Your task to perform on an android device: Turn on the flashlight Image 0: 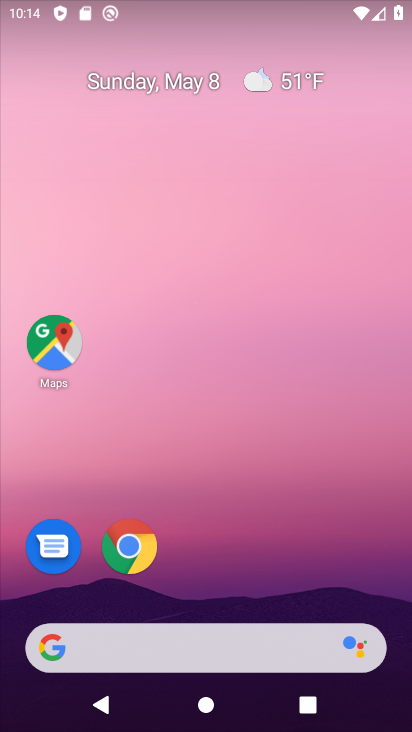
Step 0: drag from (255, 556) to (241, 6)
Your task to perform on an android device: Turn on the flashlight Image 1: 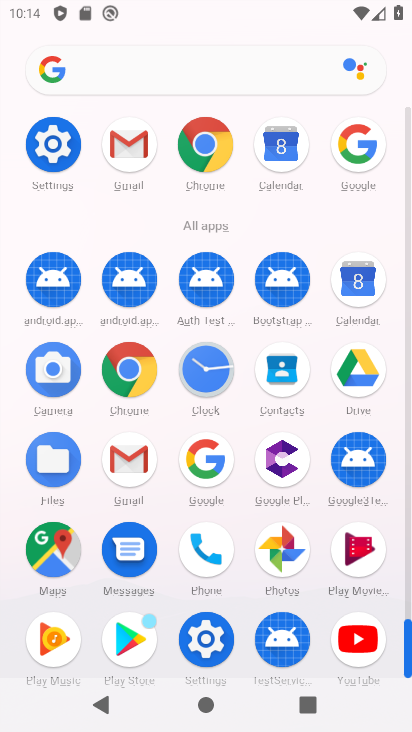
Step 1: click (52, 142)
Your task to perform on an android device: Turn on the flashlight Image 2: 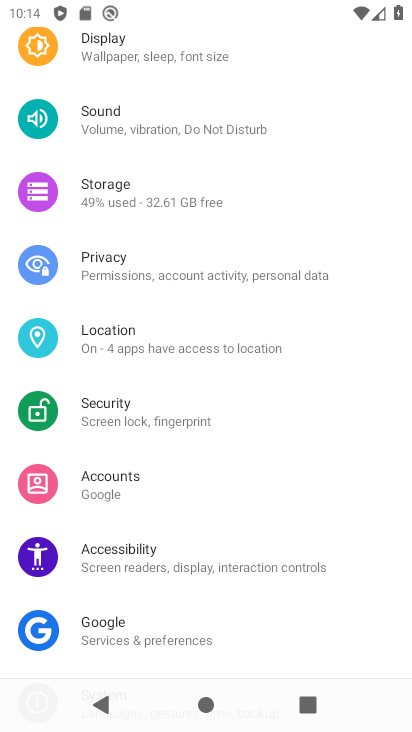
Step 2: drag from (147, 598) to (172, 469)
Your task to perform on an android device: Turn on the flashlight Image 3: 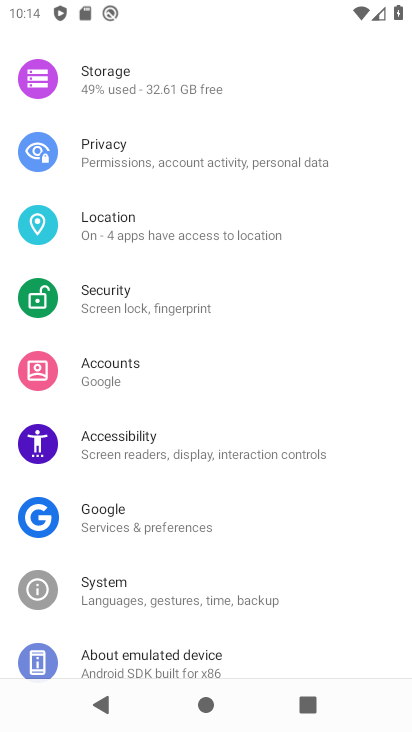
Step 3: drag from (131, 546) to (185, 444)
Your task to perform on an android device: Turn on the flashlight Image 4: 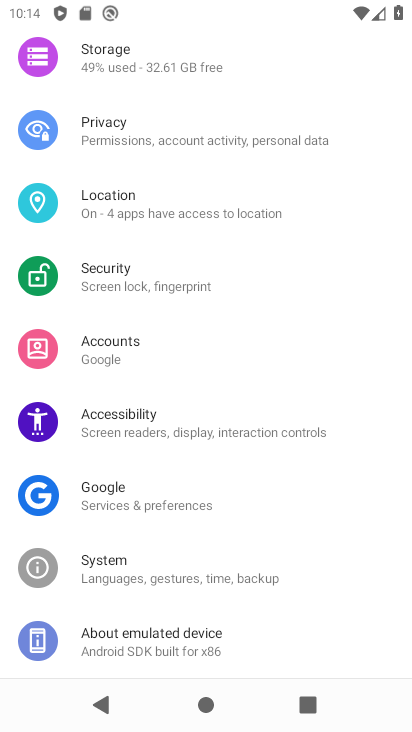
Step 4: drag from (175, 391) to (202, 494)
Your task to perform on an android device: Turn on the flashlight Image 5: 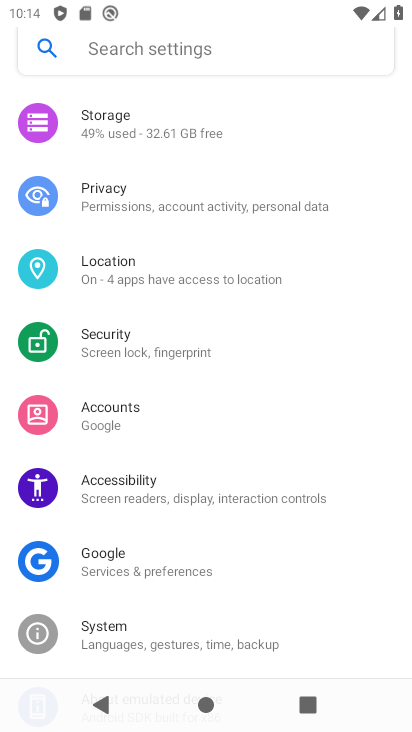
Step 5: drag from (165, 388) to (199, 480)
Your task to perform on an android device: Turn on the flashlight Image 6: 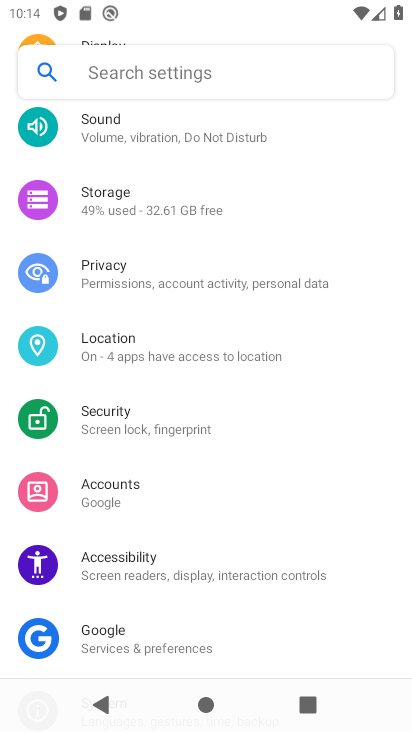
Step 6: drag from (168, 394) to (182, 482)
Your task to perform on an android device: Turn on the flashlight Image 7: 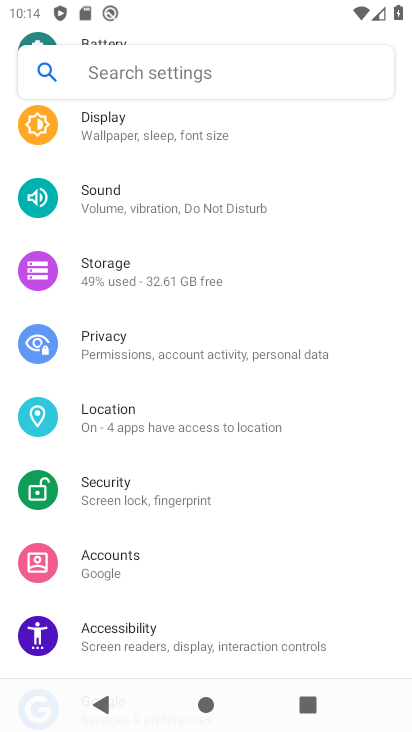
Step 7: drag from (159, 391) to (166, 463)
Your task to perform on an android device: Turn on the flashlight Image 8: 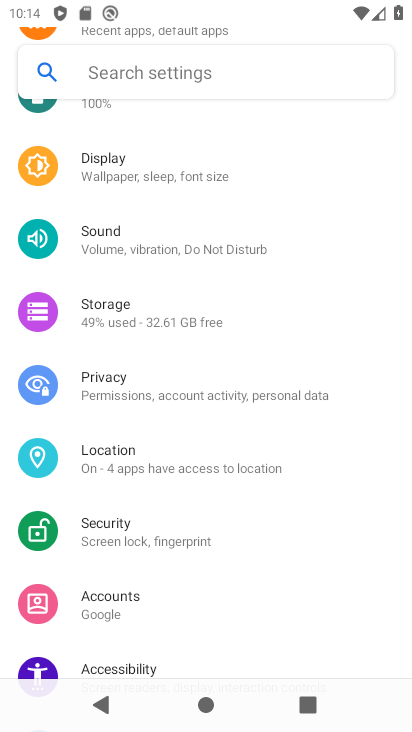
Step 8: drag from (160, 357) to (166, 450)
Your task to perform on an android device: Turn on the flashlight Image 9: 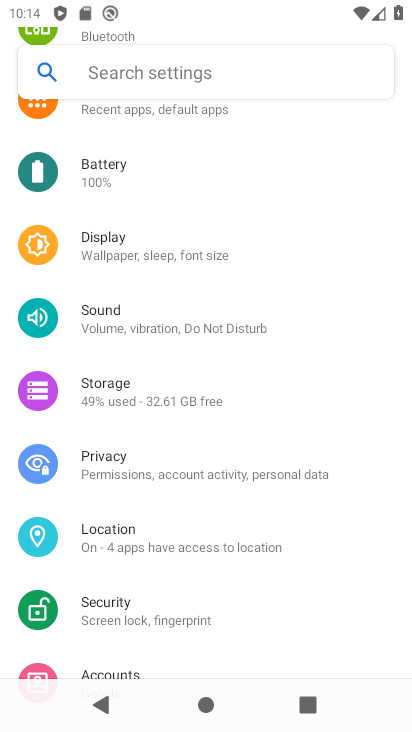
Step 9: drag from (150, 363) to (161, 454)
Your task to perform on an android device: Turn on the flashlight Image 10: 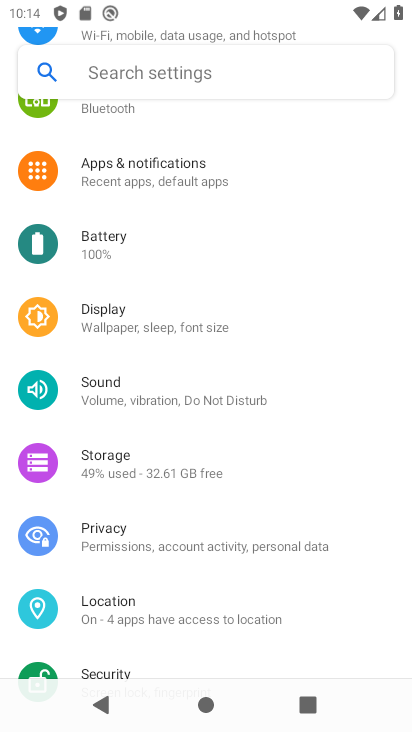
Step 10: click (159, 331)
Your task to perform on an android device: Turn on the flashlight Image 11: 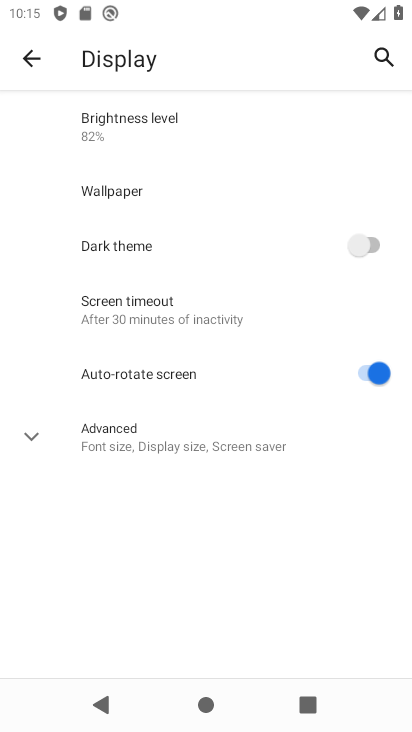
Step 11: press back button
Your task to perform on an android device: Turn on the flashlight Image 12: 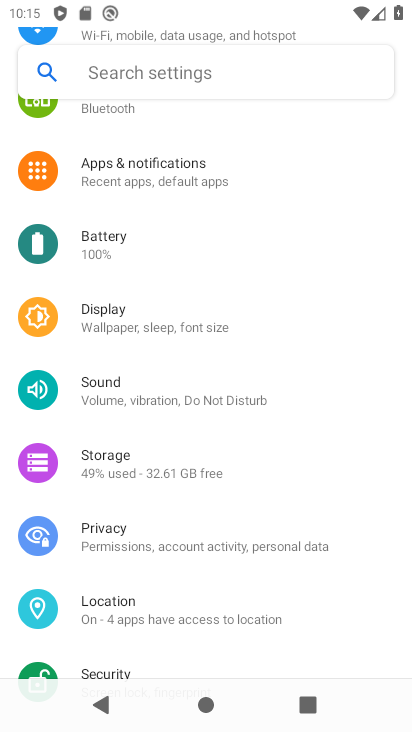
Step 12: click (154, 83)
Your task to perform on an android device: Turn on the flashlight Image 13: 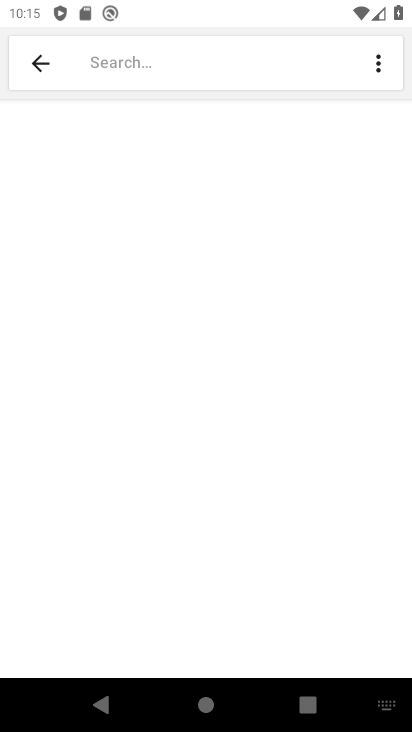
Step 13: type "flashlight"
Your task to perform on an android device: Turn on the flashlight Image 14: 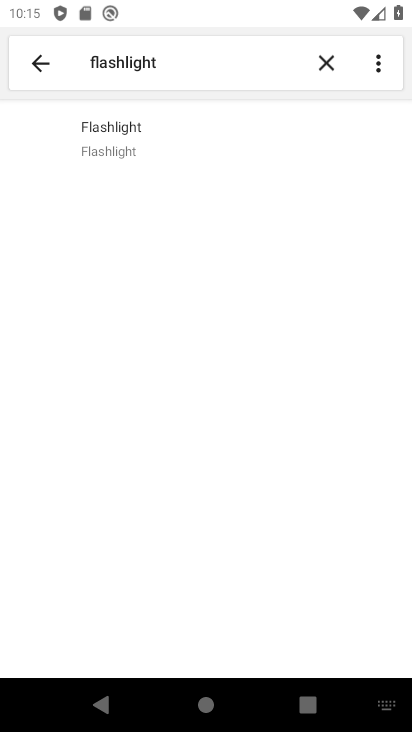
Step 14: click (117, 128)
Your task to perform on an android device: Turn on the flashlight Image 15: 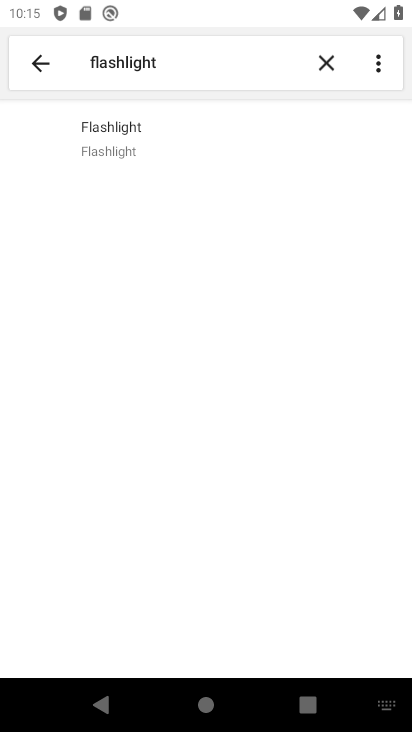
Step 15: click (117, 128)
Your task to perform on an android device: Turn on the flashlight Image 16: 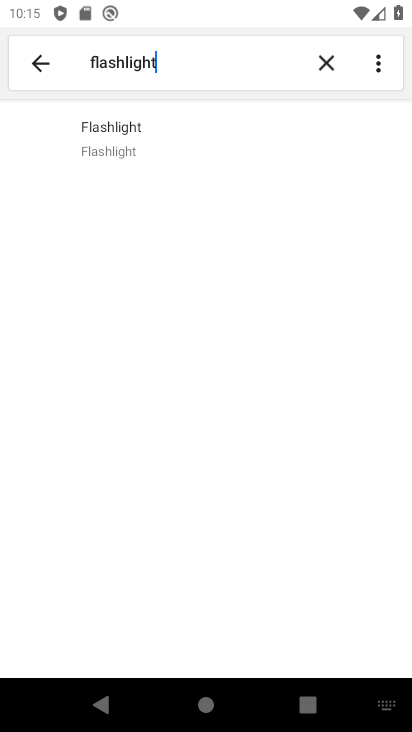
Step 16: task complete